Your task to perform on an android device: Open Google Chrome and click the shortcut for Amazon.com Image 0: 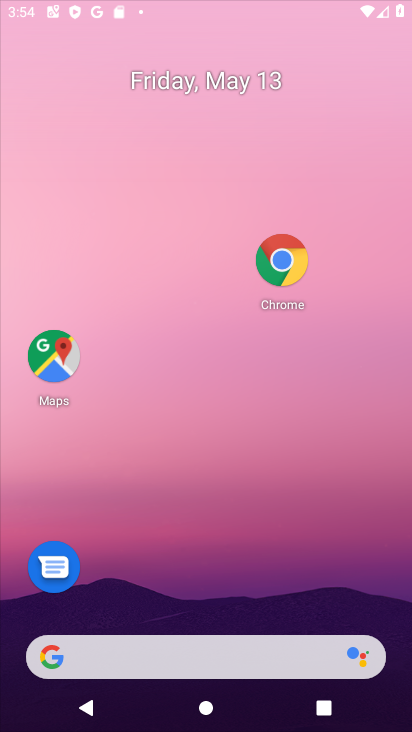
Step 0: drag from (363, 645) to (272, 378)
Your task to perform on an android device: Open Google Chrome and click the shortcut for Amazon.com Image 1: 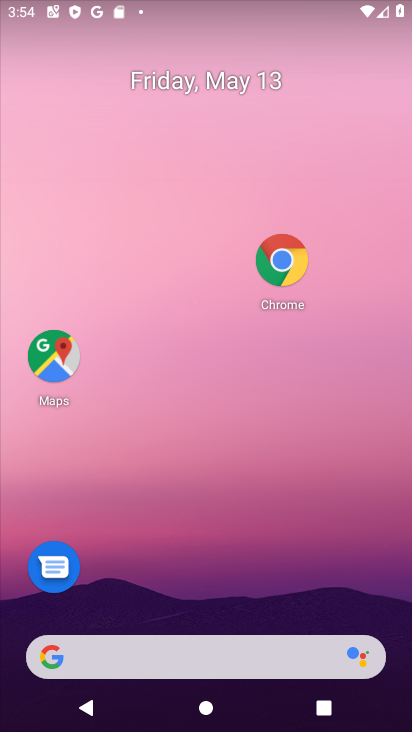
Step 1: drag from (327, 607) to (304, 655)
Your task to perform on an android device: Open Google Chrome and click the shortcut for Amazon.com Image 2: 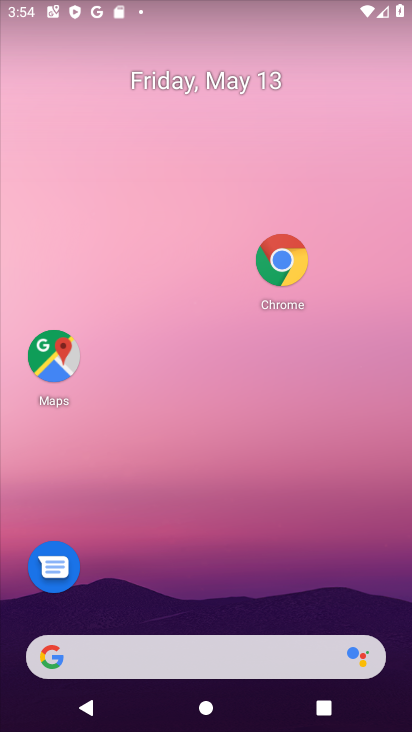
Step 2: drag from (263, 677) to (159, 231)
Your task to perform on an android device: Open Google Chrome and click the shortcut for Amazon.com Image 3: 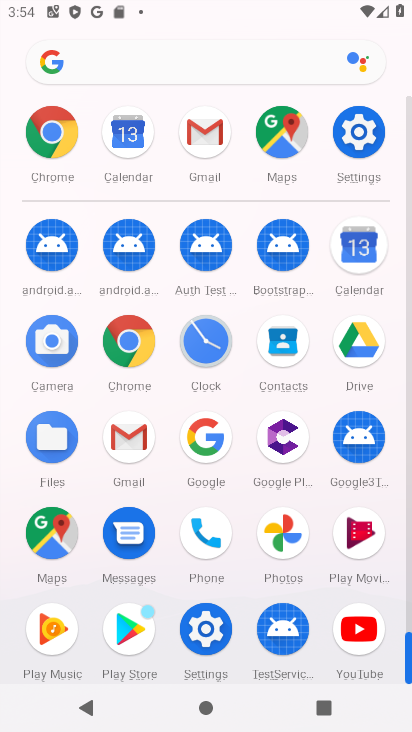
Step 3: click (40, 135)
Your task to perform on an android device: Open Google Chrome and click the shortcut for Amazon.com Image 4: 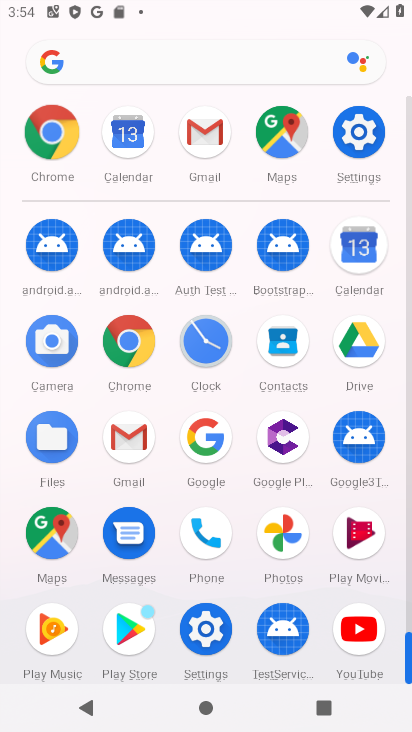
Step 4: click (57, 141)
Your task to perform on an android device: Open Google Chrome and click the shortcut for Amazon.com Image 5: 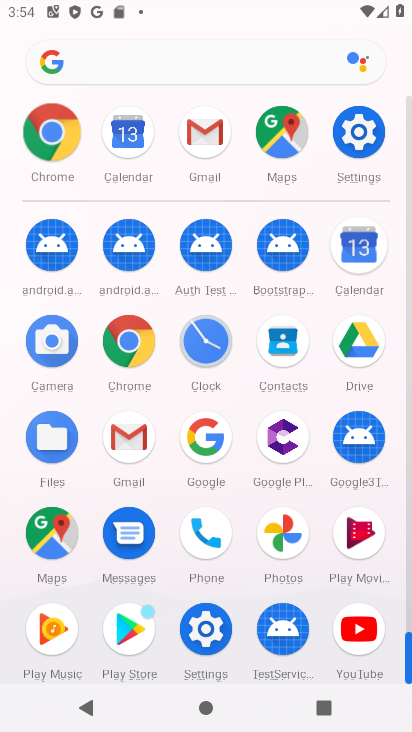
Step 5: click (57, 141)
Your task to perform on an android device: Open Google Chrome and click the shortcut for Amazon.com Image 6: 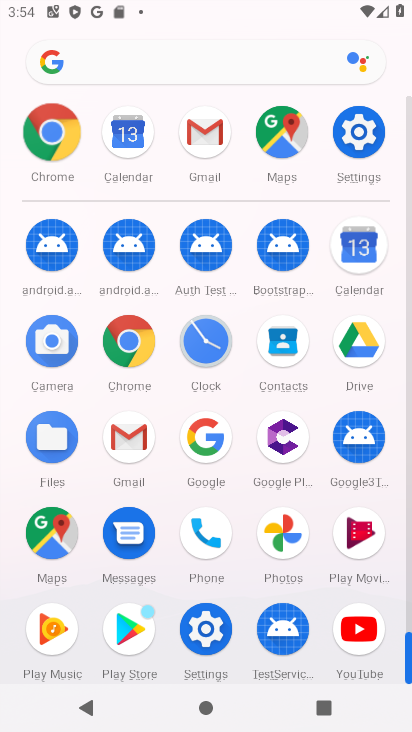
Step 6: click (57, 141)
Your task to perform on an android device: Open Google Chrome and click the shortcut for Amazon.com Image 7: 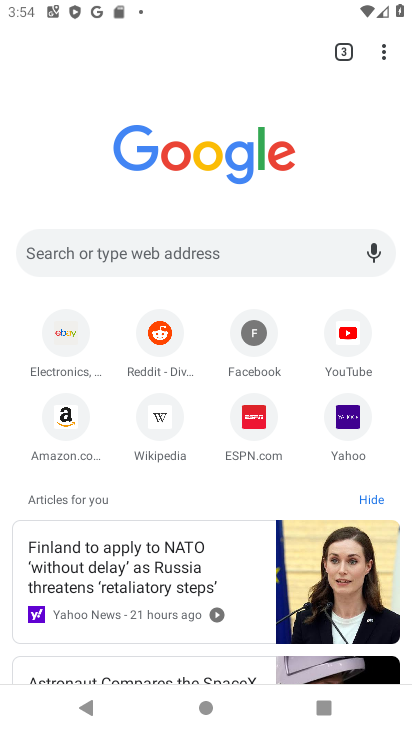
Step 7: click (70, 416)
Your task to perform on an android device: Open Google Chrome and click the shortcut for Amazon.com Image 8: 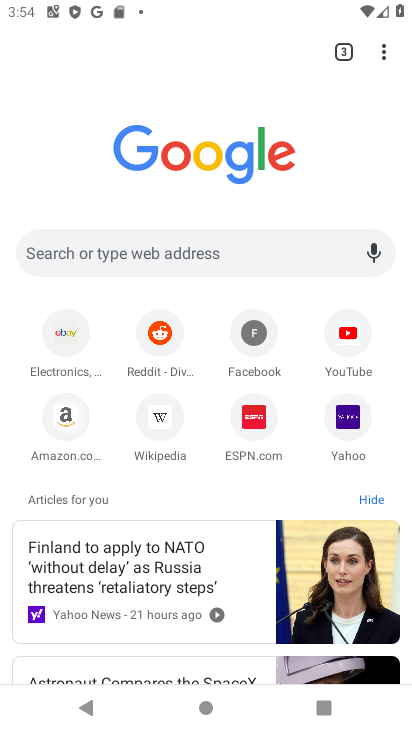
Step 8: click (70, 416)
Your task to perform on an android device: Open Google Chrome and click the shortcut for Amazon.com Image 9: 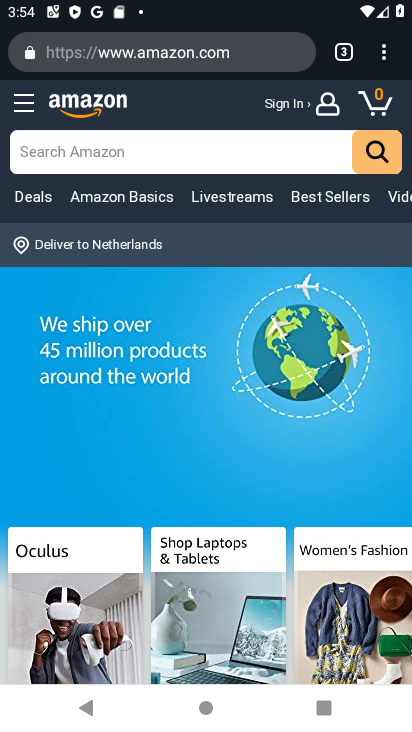
Step 9: task complete